Your task to perform on an android device: star an email in the gmail app Image 0: 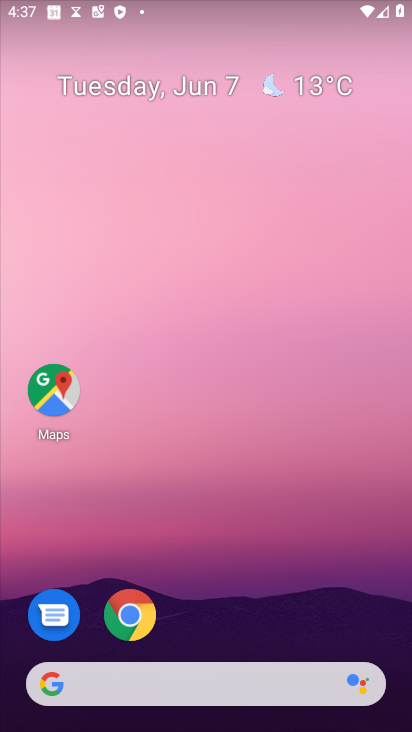
Step 0: drag from (194, 347) to (102, 31)
Your task to perform on an android device: star an email in the gmail app Image 1: 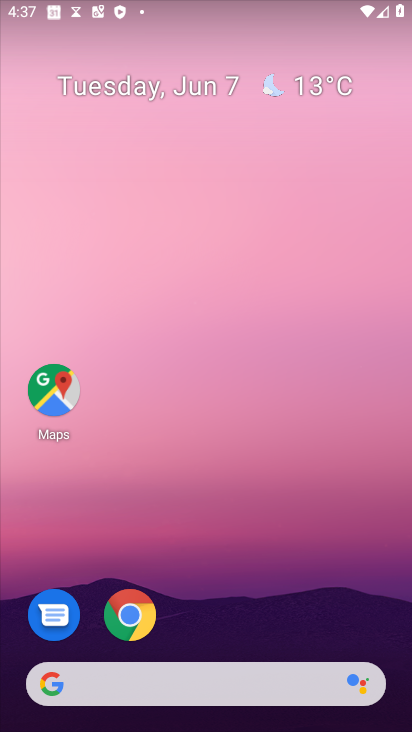
Step 1: drag from (225, 493) to (153, 70)
Your task to perform on an android device: star an email in the gmail app Image 2: 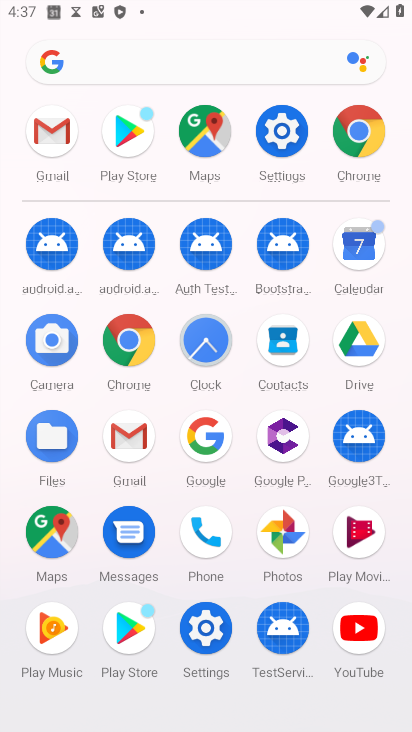
Step 2: click (134, 439)
Your task to perform on an android device: star an email in the gmail app Image 3: 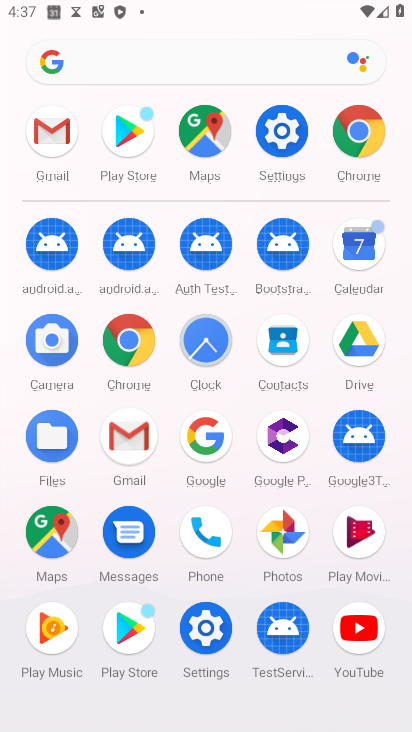
Step 3: click (134, 439)
Your task to perform on an android device: star an email in the gmail app Image 4: 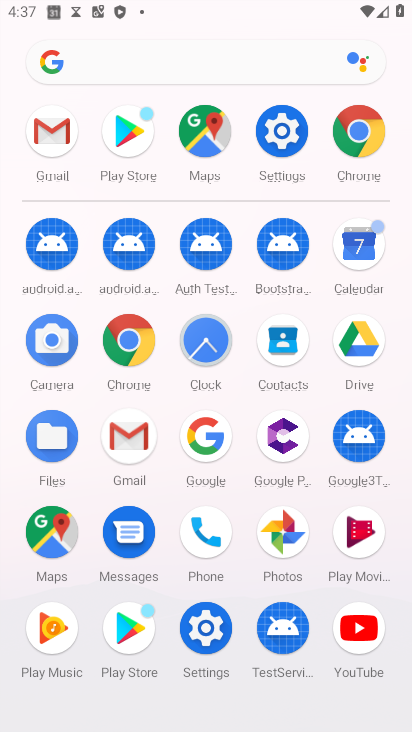
Step 4: click (131, 438)
Your task to perform on an android device: star an email in the gmail app Image 5: 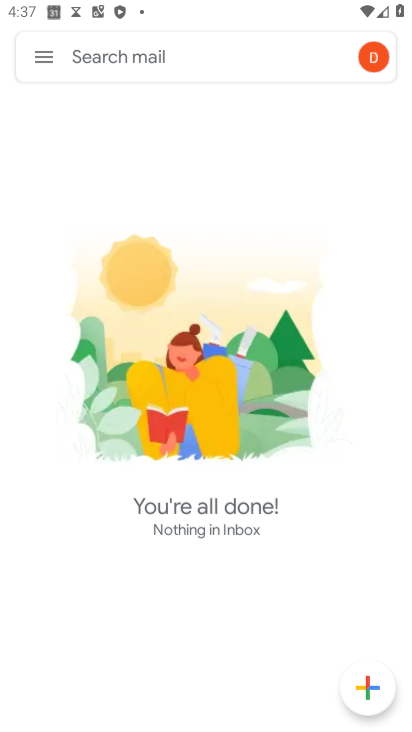
Step 5: click (128, 437)
Your task to perform on an android device: star an email in the gmail app Image 6: 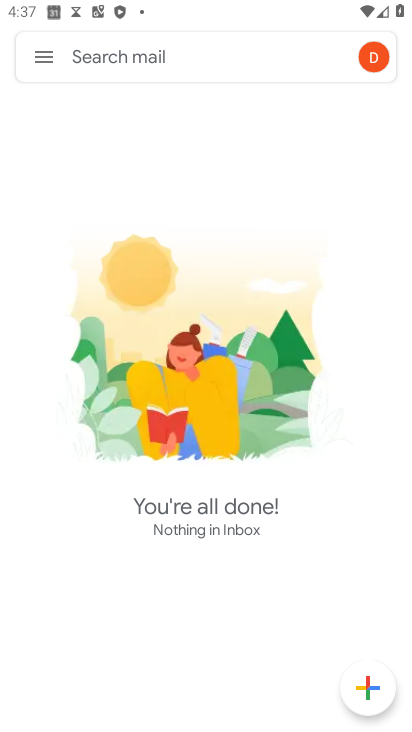
Step 6: click (126, 437)
Your task to perform on an android device: star an email in the gmail app Image 7: 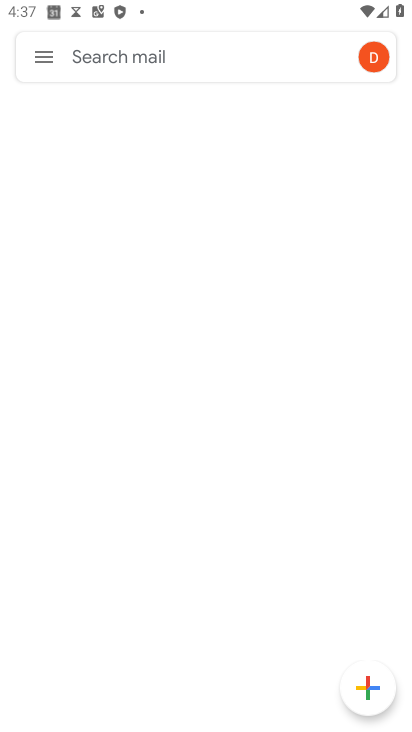
Step 7: click (50, 56)
Your task to perform on an android device: star an email in the gmail app Image 8: 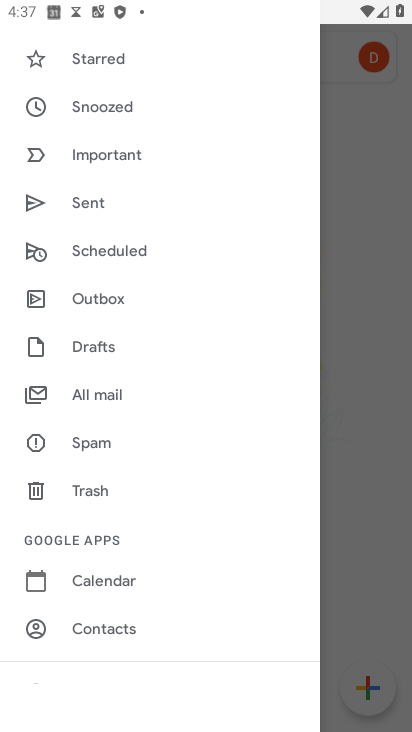
Step 8: click (97, 394)
Your task to perform on an android device: star an email in the gmail app Image 9: 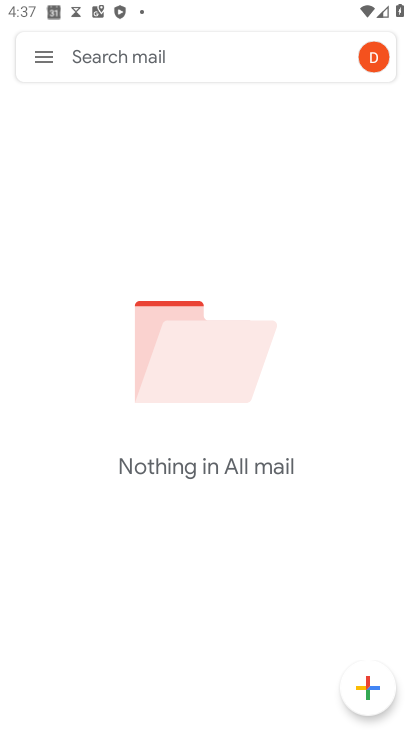
Step 9: task complete